Your task to perform on an android device: empty trash in the gmail app Image 0: 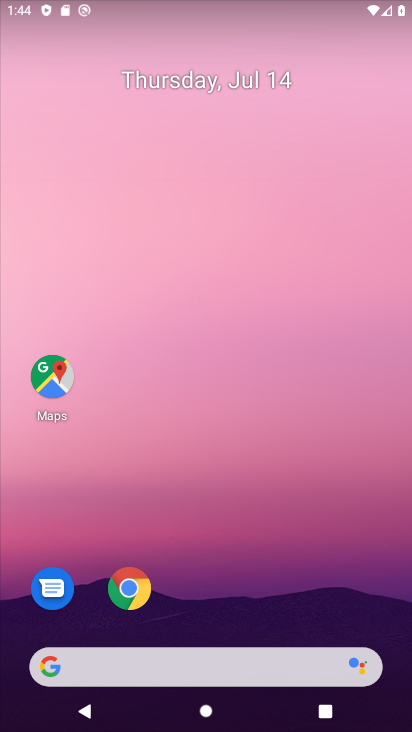
Step 0: drag from (177, 708) to (151, 165)
Your task to perform on an android device: empty trash in the gmail app Image 1: 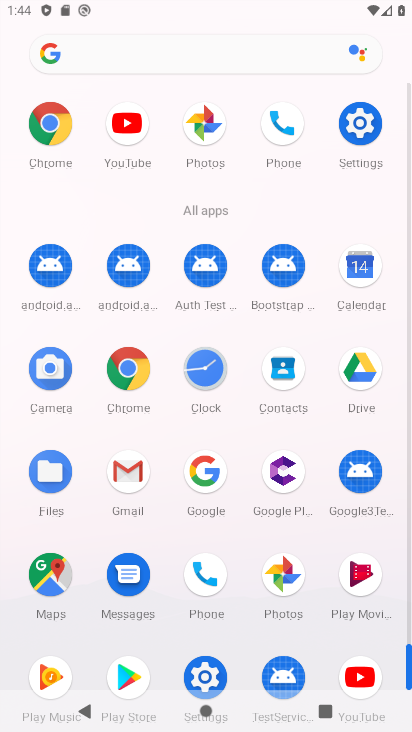
Step 1: click (128, 480)
Your task to perform on an android device: empty trash in the gmail app Image 2: 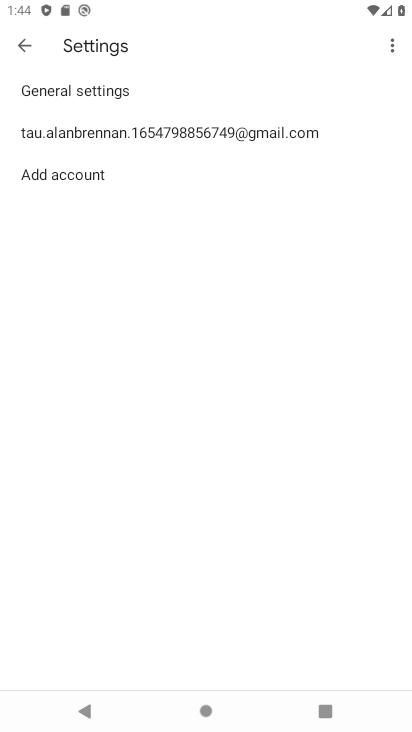
Step 2: click (149, 138)
Your task to perform on an android device: empty trash in the gmail app Image 3: 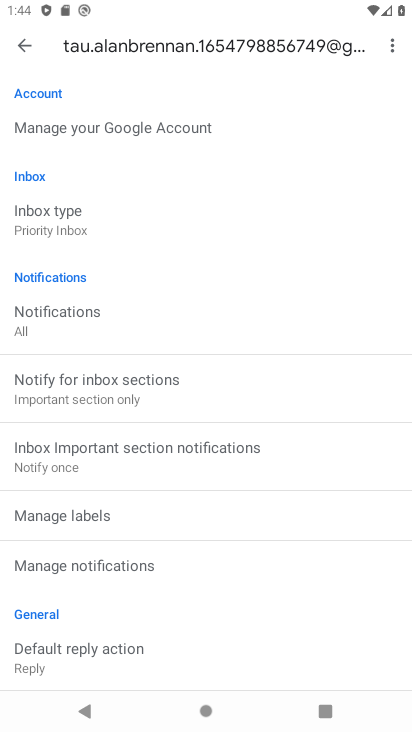
Step 3: click (22, 42)
Your task to perform on an android device: empty trash in the gmail app Image 4: 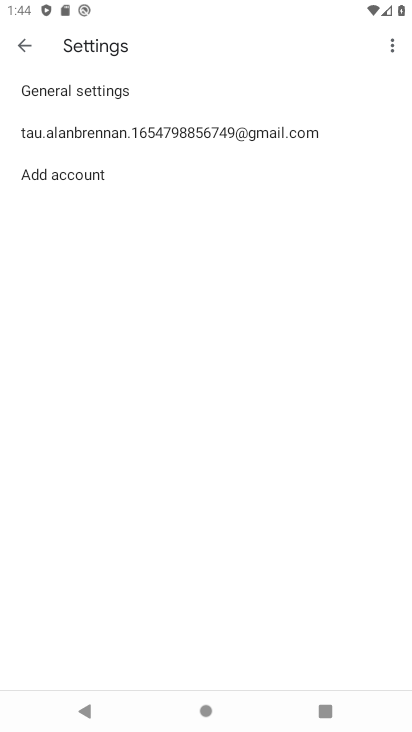
Step 4: click (23, 42)
Your task to perform on an android device: empty trash in the gmail app Image 5: 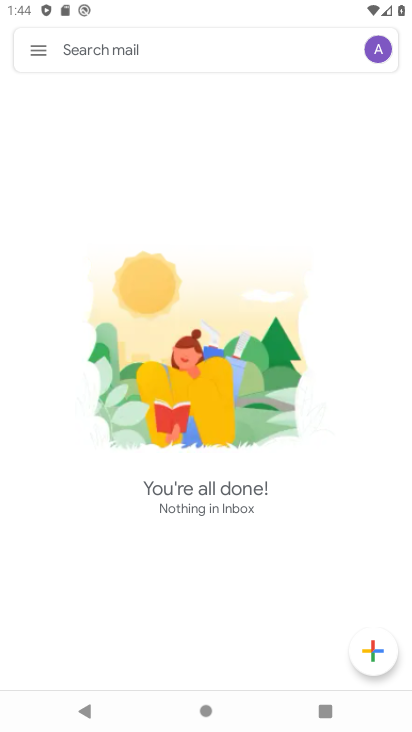
Step 5: click (25, 42)
Your task to perform on an android device: empty trash in the gmail app Image 6: 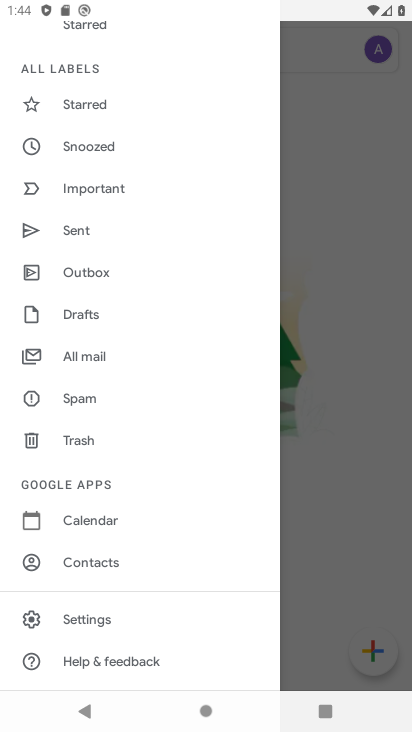
Step 6: click (101, 445)
Your task to perform on an android device: empty trash in the gmail app Image 7: 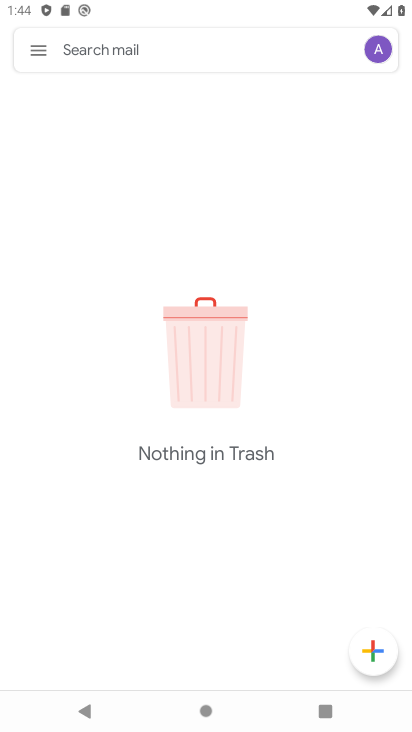
Step 7: task complete